Your task to perform on an android device: turn on data saver in the chrome app Image 0: 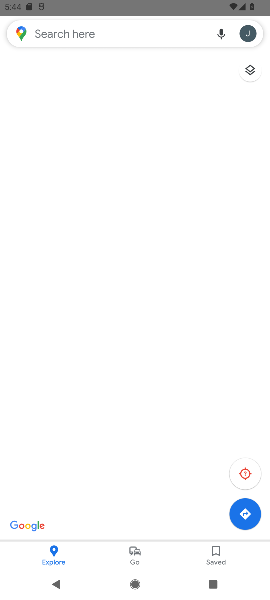
Step 0: press home button
Your task to perform on an android device: turn on data saver in the chrome app Image 1: 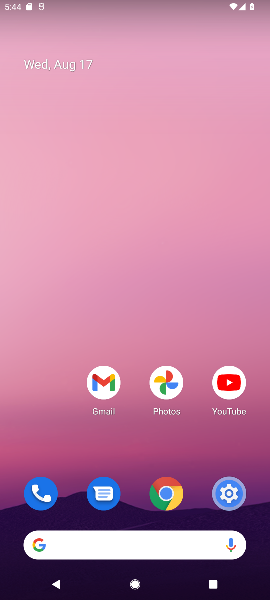
Step 1: click (170, 497)
Your task to perform on an android device: turn on data saver in the chrome app Image 2: 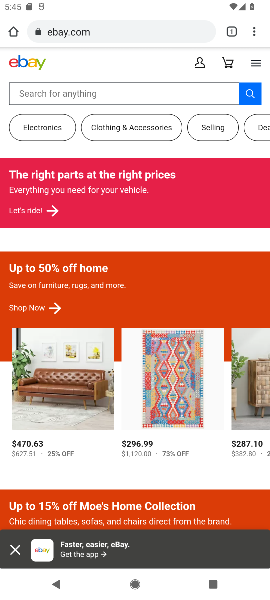
Step 2: drag from (253, 27) to (163, 414)
Your task to perform on an android device: turn on data saver in the chrome app Image 3: 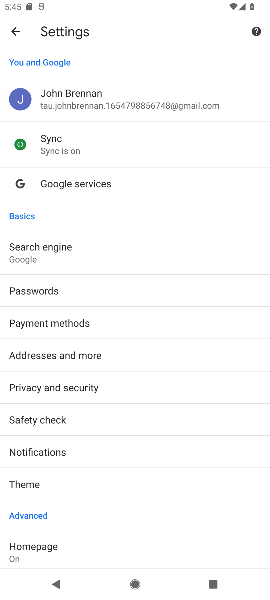
Step 3: drag from (190, 516) to (167, 222)
Your task to perform on an android device: turn on data saver in the chrome app Image 4: 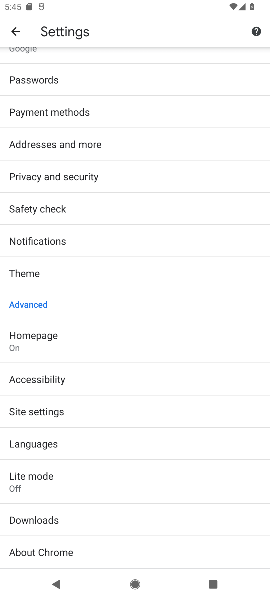
Step 4: click (31, 485)
Your task to perform on an android device: turn on data saver in the chrome app Image 5: 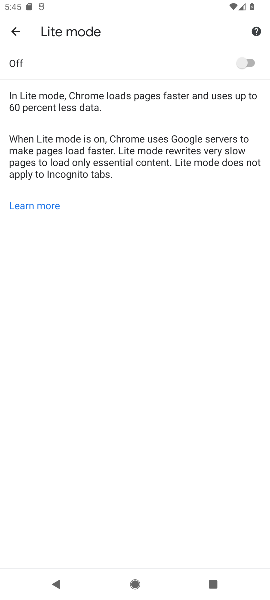
Step 5: click (246, 59)
Your task to perform on an android device: turn on data saver in the chrome app Image 6: 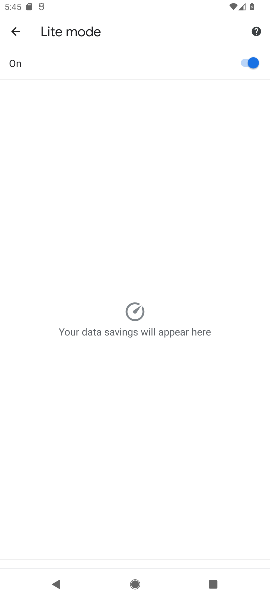
Step 6: task complete